Your task to perform on an android device: turn off notifications settings in the gmail app Image 0: 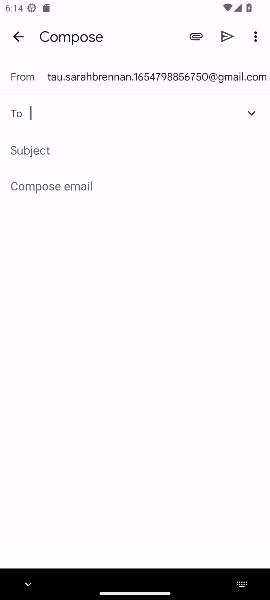
Step 0: press home button
Your task to perform on an android device: turn off notifications settings in the gmail app Image 1: 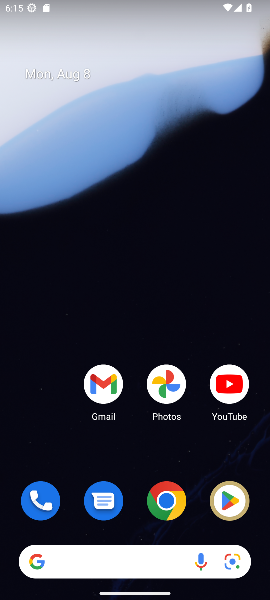
Step 1: click (95, 387)
Your task to perform on an android device: turn off notifications settings in the gmail app Image 2: 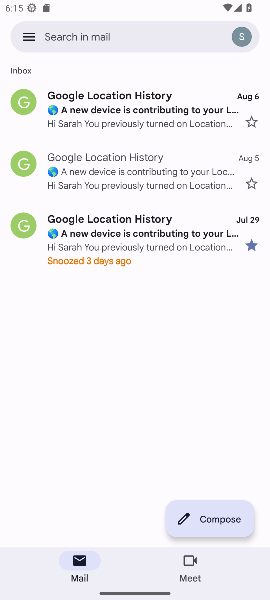
Step 2: click (29, 35)
Your task to perform on an android device: turn off notifications settings in the gmail app Image 3: 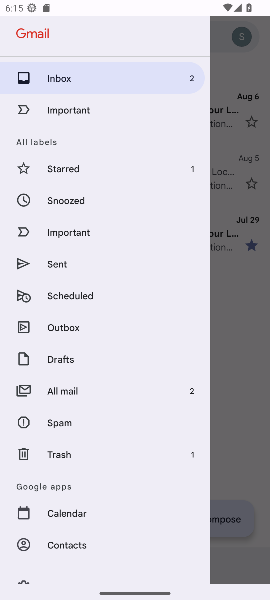
Step 3: drag from (114, 524) to (95, 306)
Your task to perform on an android device: turn off notifications settings in the gmail app Image 4: 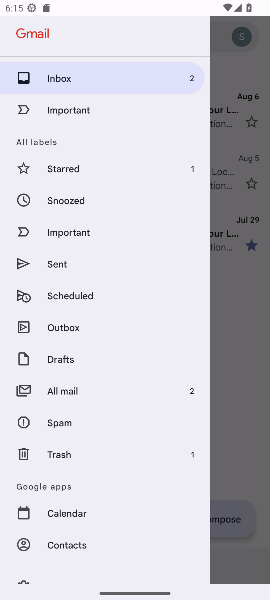
Step 4: drag from (46, 543) to (27, 210)
Your task to perform on an android device: turn off notifications settings in the gmail app Image 5: 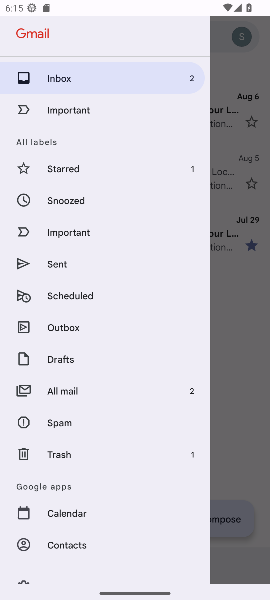
Step 5: drag from (63, 470) to (62, 54)
Your task to perform on an android device: turn off notifications settings in the gmail app Image 6: 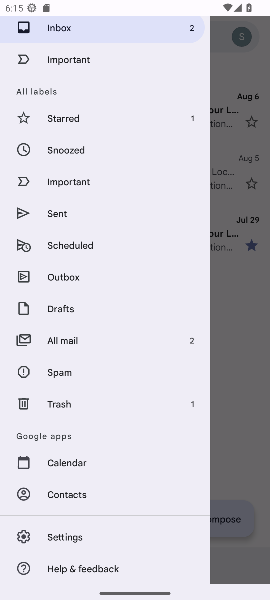
Step 6: click (73, 529)
Your task to perform on an android device: turn off notifications settings in the gmail app Image 7: 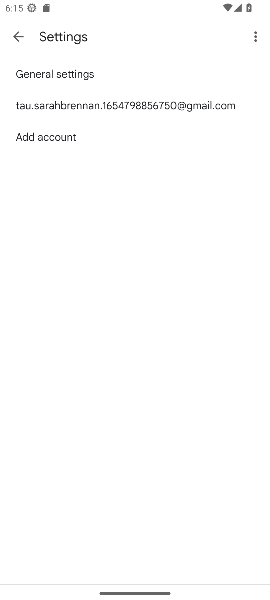
Step 7: click (62, 110)
Your task to perform on an android device: turn off notifications settings in the gmail app Image 8: 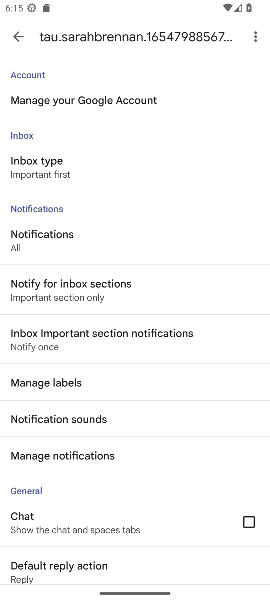
Step 8: click (72, 455)
Your task to perform on an android device: turn off notifications settings in the gmail app Image 9: 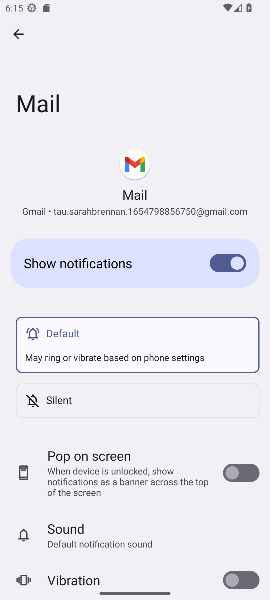
Step 9: click (213, 273)
Your task to perform on an android device: turn off notifications settings in the gmail app Image 10: 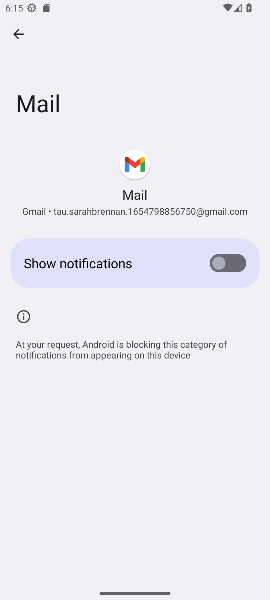
Step 10: task complete